Your task to perform on an android device: change the upload size in google photos Image 0: 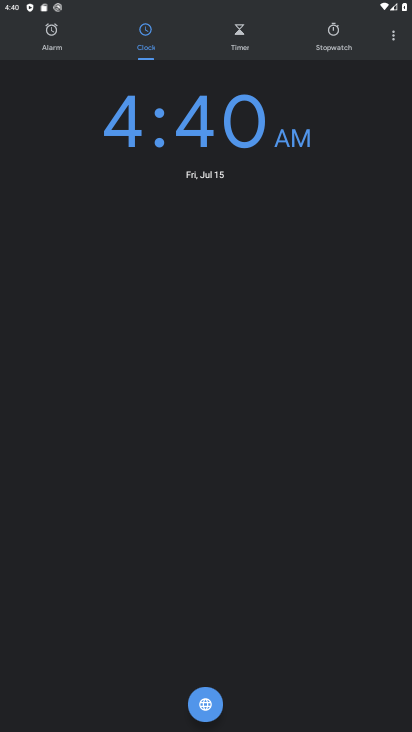
Step 0: press home button
Your task to perform on an android device: change the upload size in google photos Image 1: 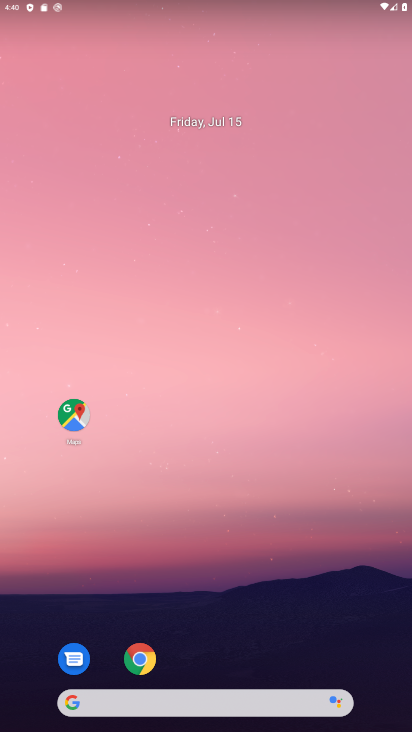
Step 1: drag from (280, 507) to (287, 188)
Your task to perform on an android device: change the upload size in google photos Image 2: 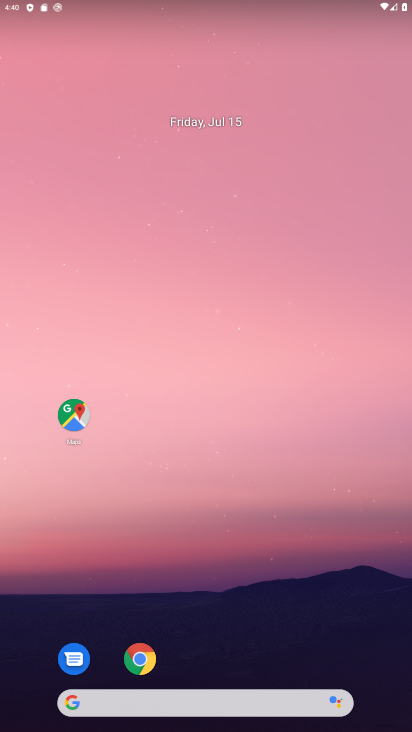
Step 2: drag from (304, 591) to (291, 188)
Your task to perform on an android device: change the upload size in google photos Image 3: 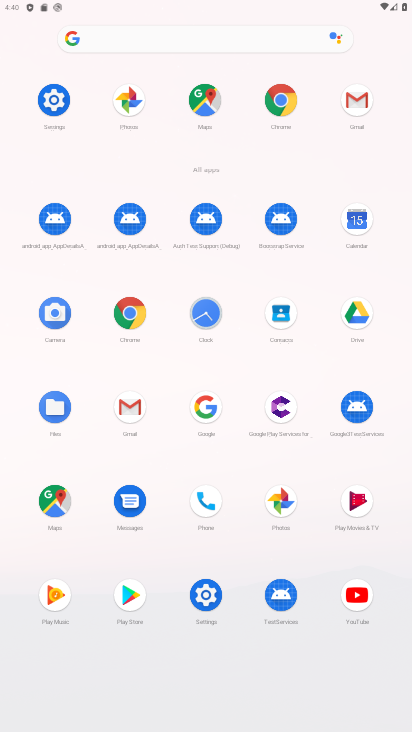
Step 3: click (131, 100)
Your task to perform on an android device: change the upload size in google photos Image 4: 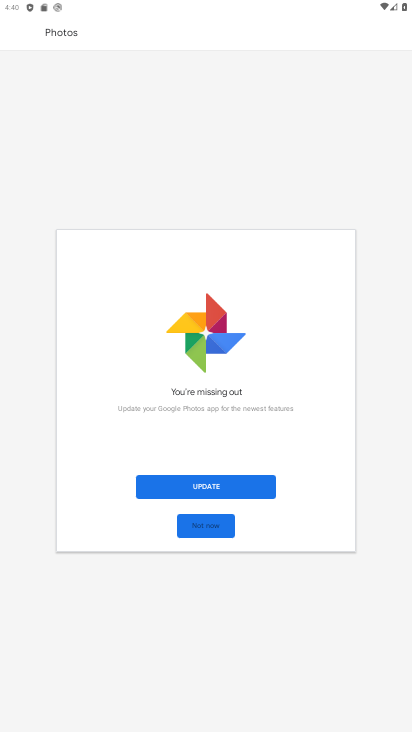
Step 4: click (317, 396)
Your task to perform on an android device: change the upload size in google photos Image 5: 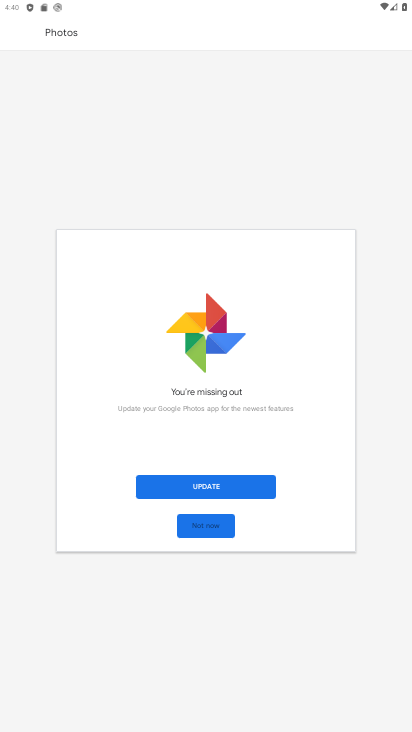
Step 5: click (219, 531)
Your task to perform on an android device: change the upload size in google photos Image 6: 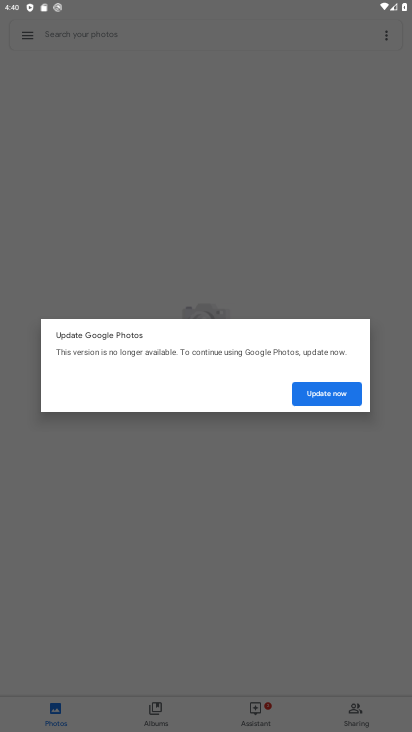
Step 6: click (321, 388)
Your task to perform on an android device: change the upload size in google photos Image 7: 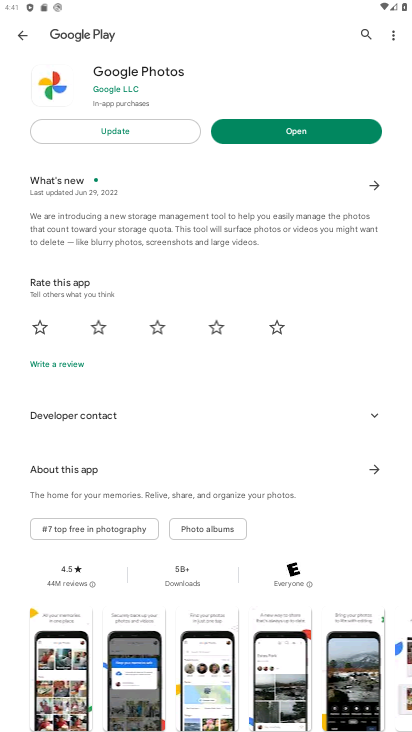
Step 7: click (296, 126)
Your task to perform on an android device: change the upload size in google photos Image 8: 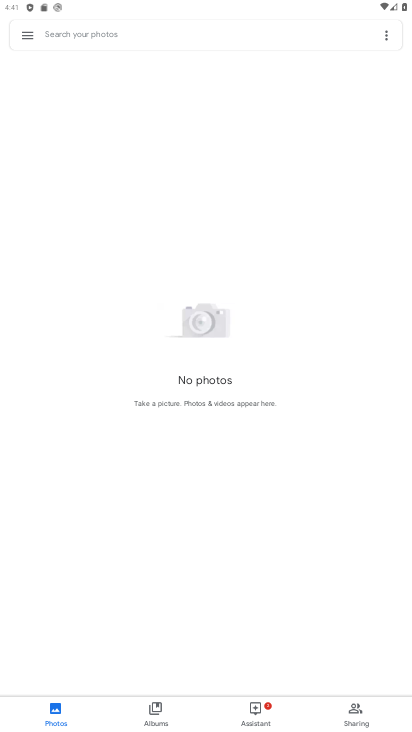
Step 8: click (36, 34)
Your task to perform on an android device: change the upload size in google photos Image 9: 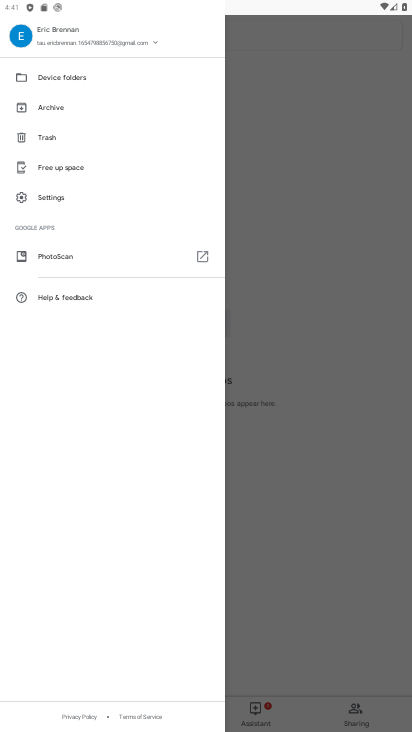
Step 9: click (94, 207)
Your task to perform on an android device: change the upload size in google photos Image 10: 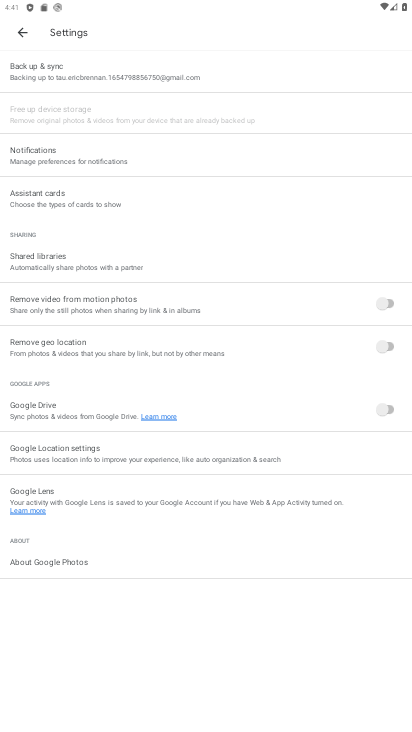
Step 10: click (166, 56)
Your task to perform on an android device: change the upload size in google photos Image 11: 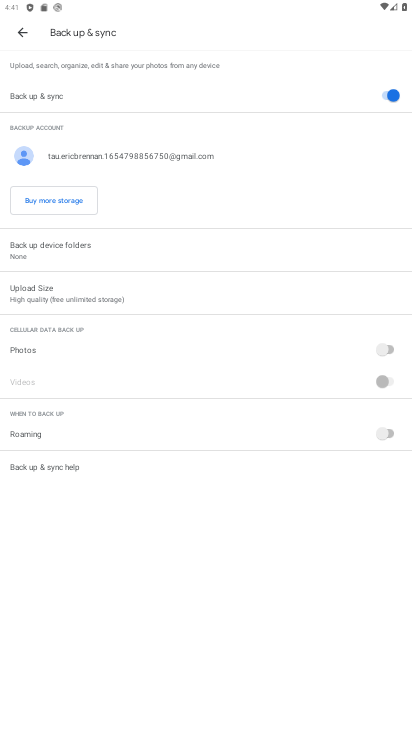
Step 11: click (276, 297)
Your task to perform on an android device: change the upload size in google photos Image 12: 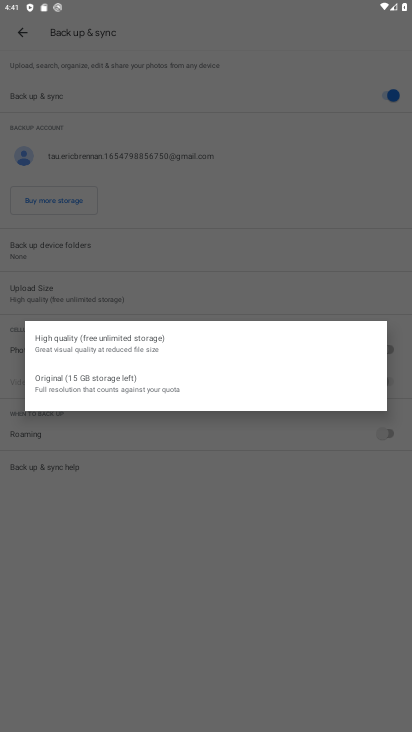
Step 12: click (101, 391)
Your task to perform on an android device: change the upload size in google photos Image 13: 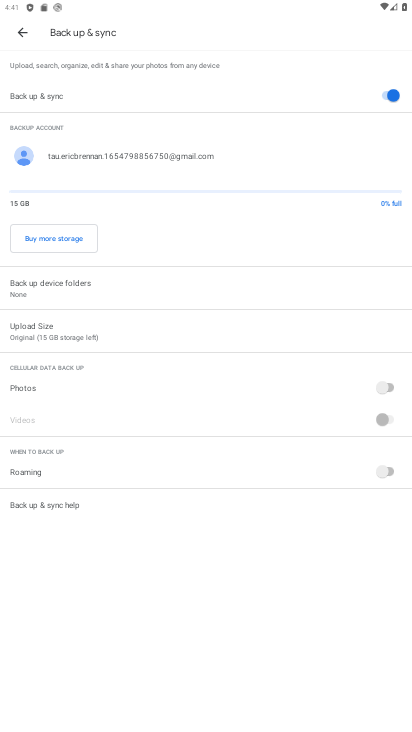
Step 13: task complete